Your task to perform on an android device: Go to Amazon Image 0: 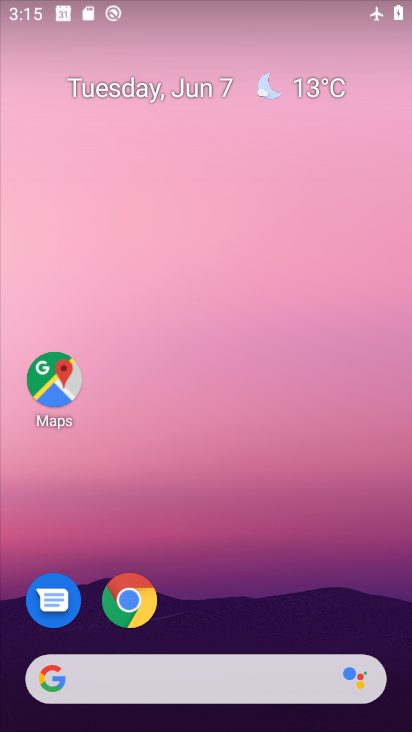
Step 0: click (135, 599)
Your task to perform on an android device: Go to Amazon Image 1: 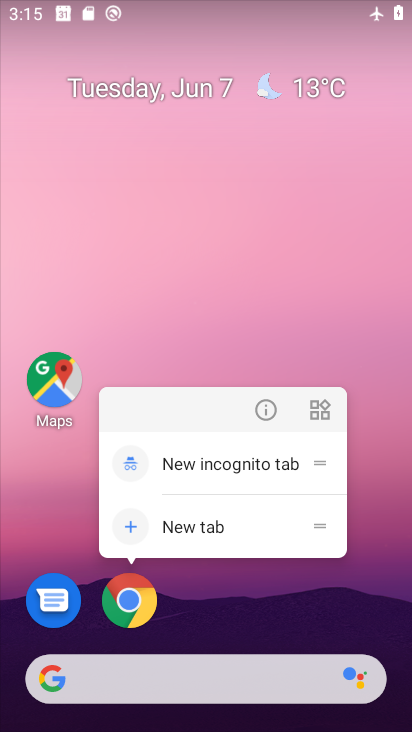
Step 1: click (136, 606)
Your task to perform on an android device: Go to Amazon Image 2: 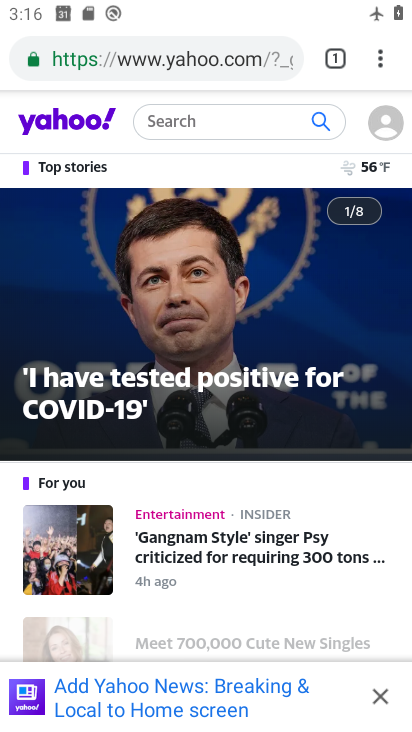
Step 2: click (257, 52)
Your task to perform on an android device: Go to Amazon Image 3: 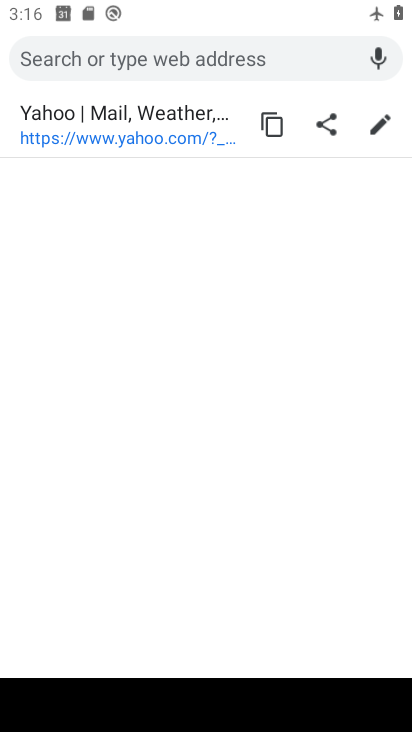
Step 3: type "amazon"
Your task to perform on an android device: Go to Amazon Image 4: 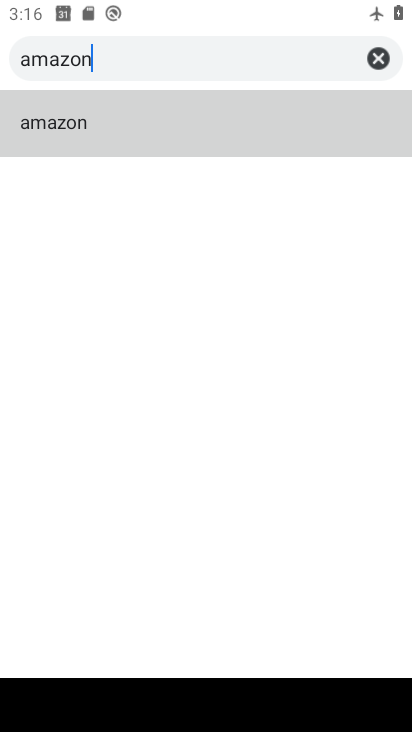
Step 4: click (71, 109)
Your task to perform on an android device: Go to Amazon Image 5: 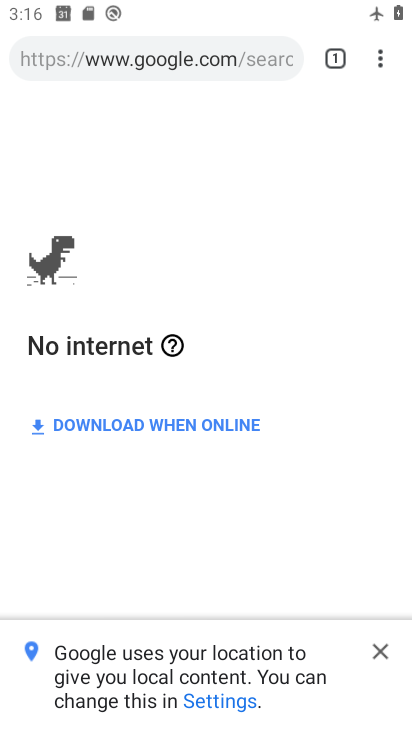
Step 5: task complete